Your task to perform on an android device: make emails show in primary in the gmail app Image 0: 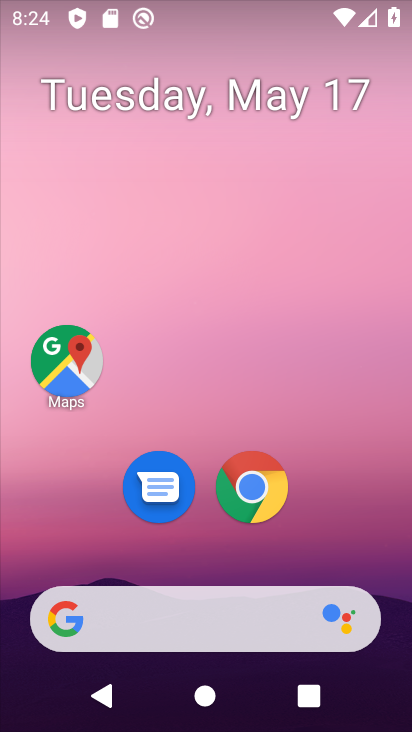
Step 0: drag from (277, 617) to (226, 118)
Your task to perform on an android device: make emails show in primary in the gmail app Image 1: 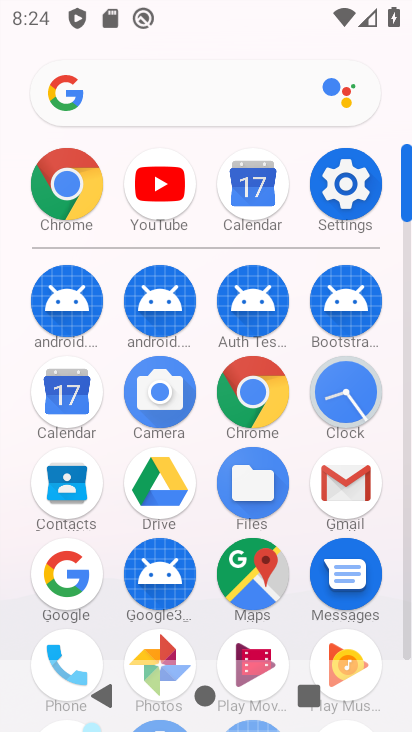
Step 1: click (329, 500)
Your task to perform on an android device: make emails show in primary in the gmail app Image 2: 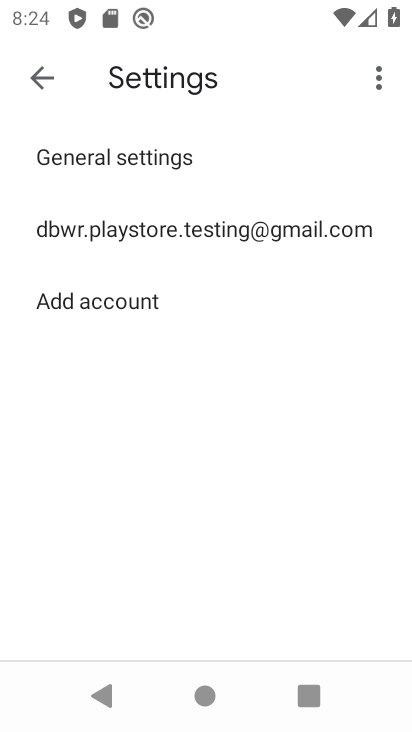
Step 2: click (161, 220)
Your task to perform on an android device: make emails show in primary in the gmail app Image 3: 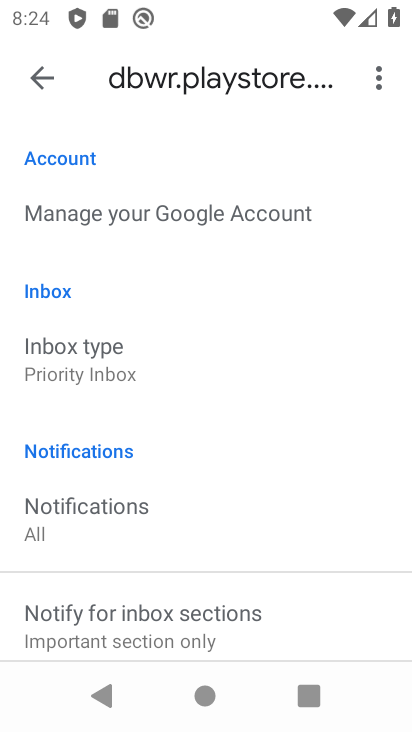
Step 3: click (122, 375)
Your task to perform on an android device: make emails show in primary in the gmail app Image 4: 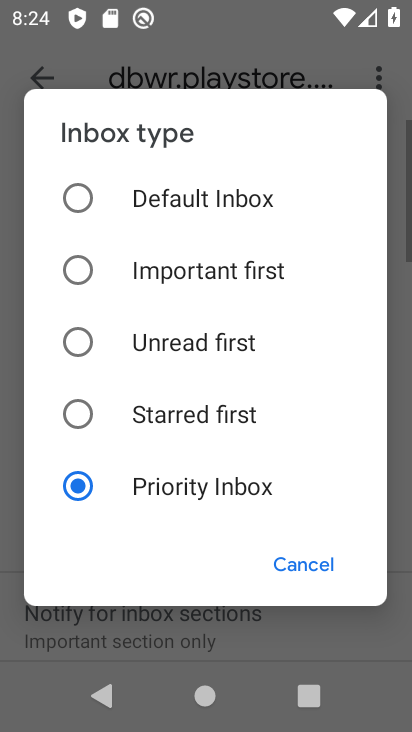
Step 4: click (188, 186)
Your task to perform on an android device: make emails show in primary in the gmail app Image 5: 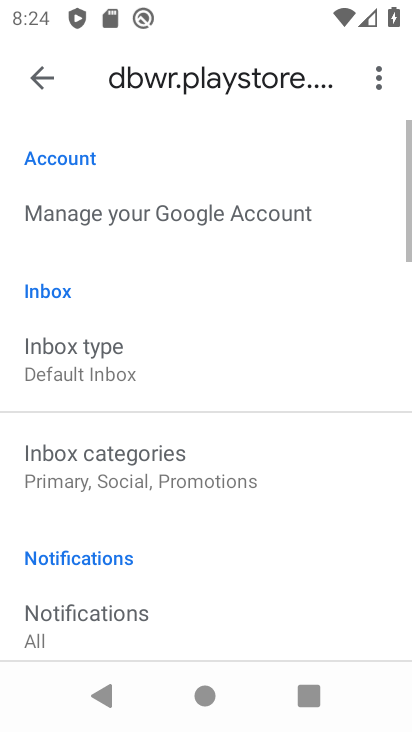
Step 5: click (133, 477)
Your task to perform on an android device: make emails show in primary in the gmail app Image 6: 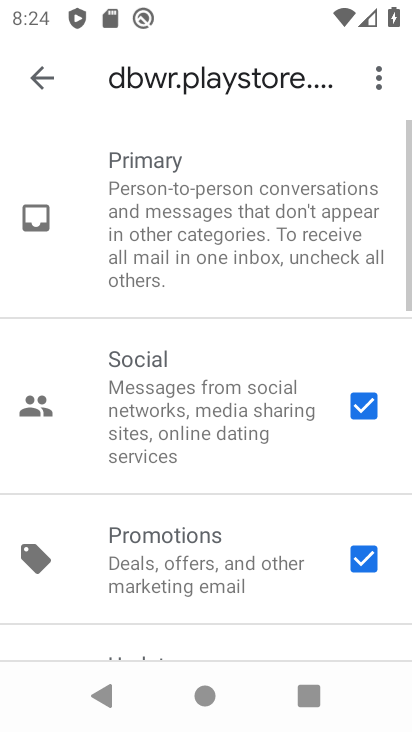
Step 6: click (180, 250)
Your task to perform on an android device: make emails show in primary in the gmail app Image 7: 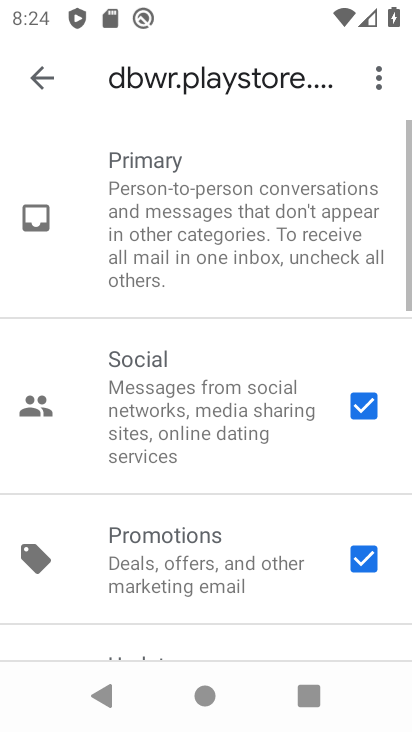
Step 7: task complete